Your task to perform on an android device: Open calendar and show me the fourth week of next month Image 0: 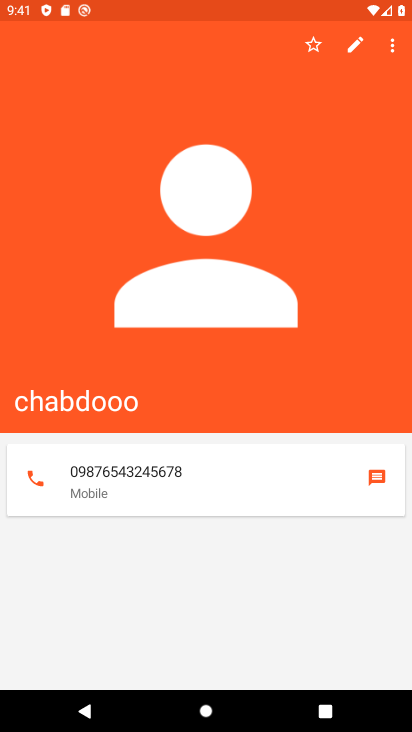
Step 0: press home button
Your task to perform on an android device: Open calendar and show me the fourth week of next month Image 1: 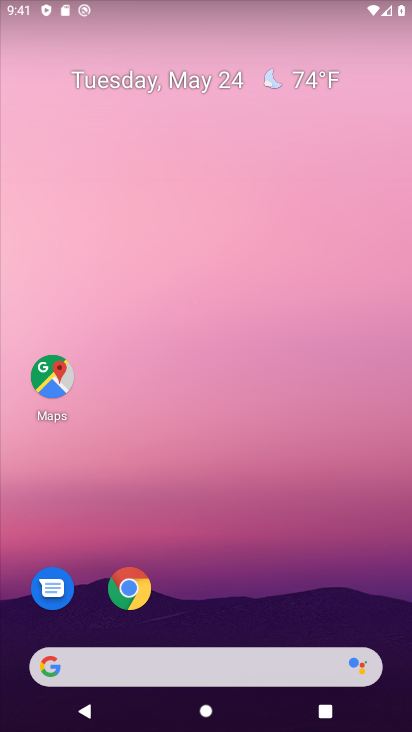
Step 1: click (156, 75)
Your task to perform on an android device: Open calendar and show me the fourth week of next month Image 2: 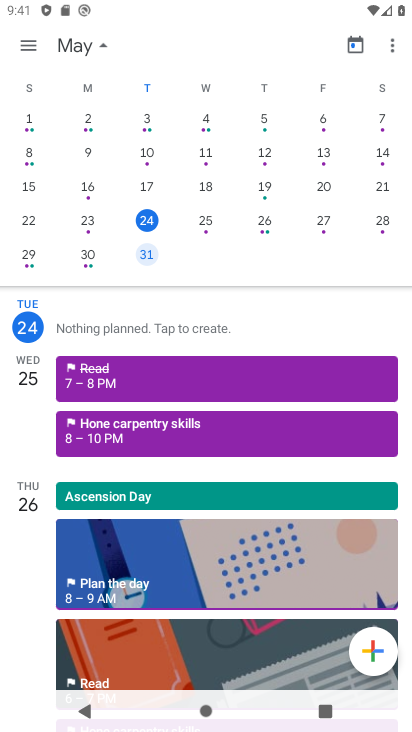
Step 2: drag from (370, 267) to (7, 199)
Your task to perform on an android device: Open calendar and show me the fourth week of next month Image 3: 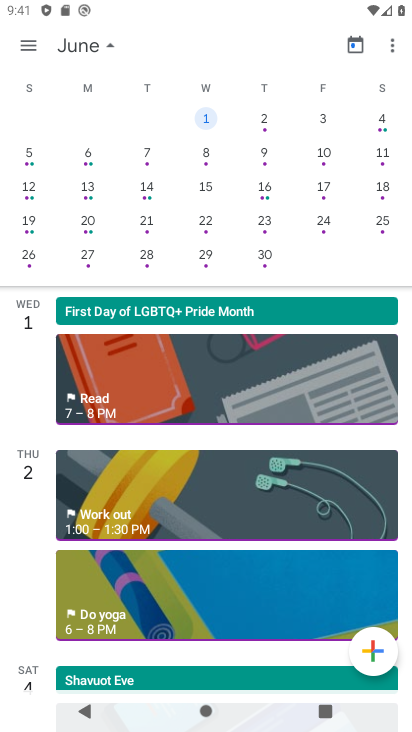
Step 3: click (202, 228)
Your task to perform on an android device: Open calendar and show me the fourth week of next month Image 4: 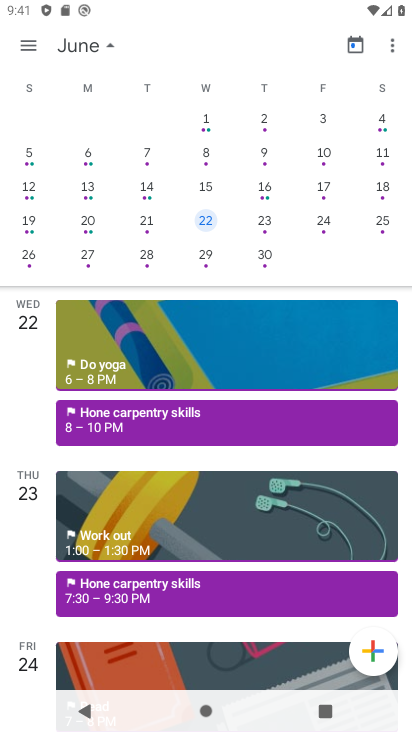
Step 4: task complete